Your task to perform on an android device: check out phone information Image 0: 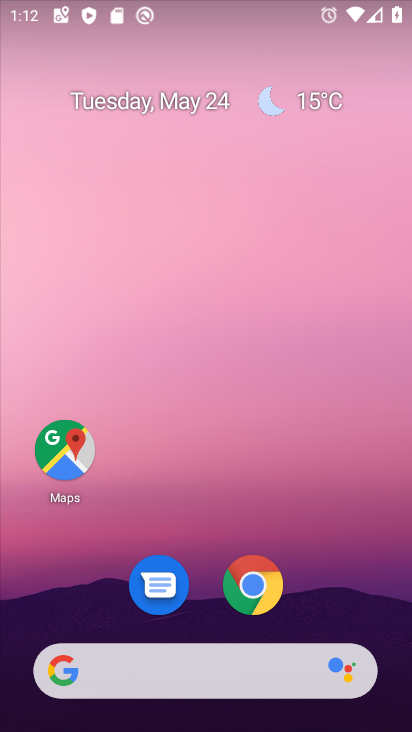
Step 0: drag from (227, 462) to (199, 37)
Your task to perform on an android device: check out phone information Image 1: 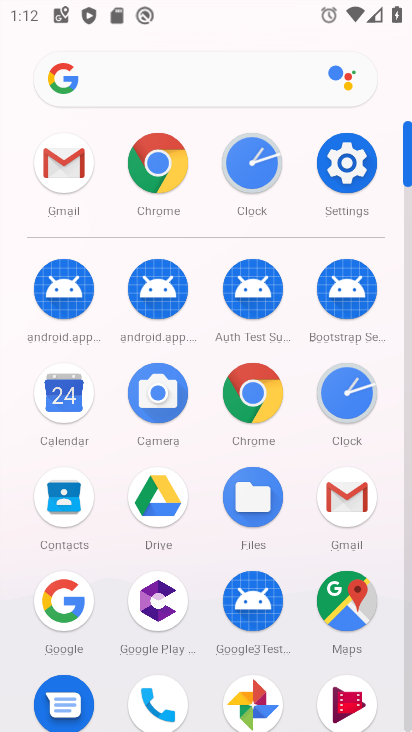
Step 1: click (162, 696)
Your task to perform on an android device: check out phone information Image 2: 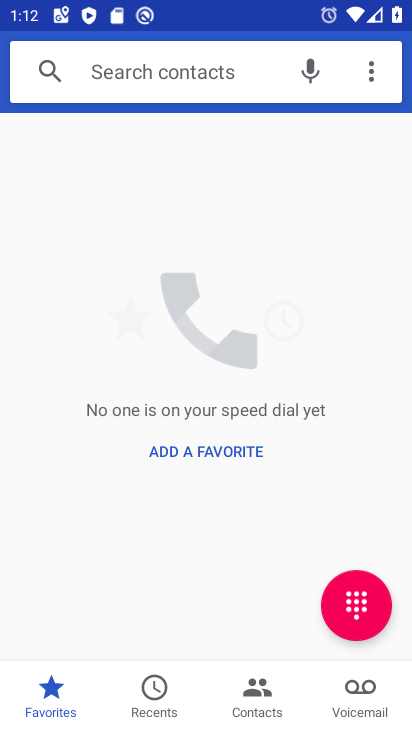
Step 2: click (371, 76)
Your task to perform on an android device: check out phone information Image 3: 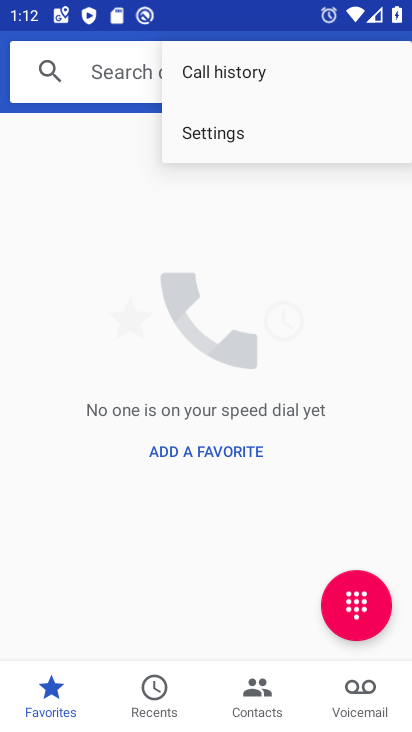
Step 3: click (318, 132)
Your task to perform on an android device: check out phone information Image 4: 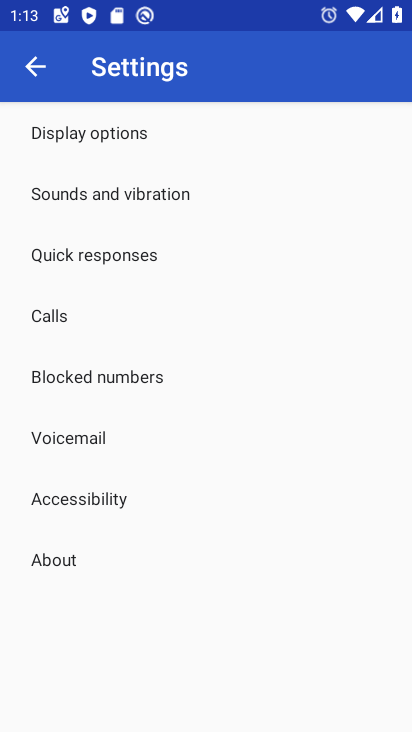
Step 4: click (83, 562)
Your task to perform on an android device: check out phone information Image 5: 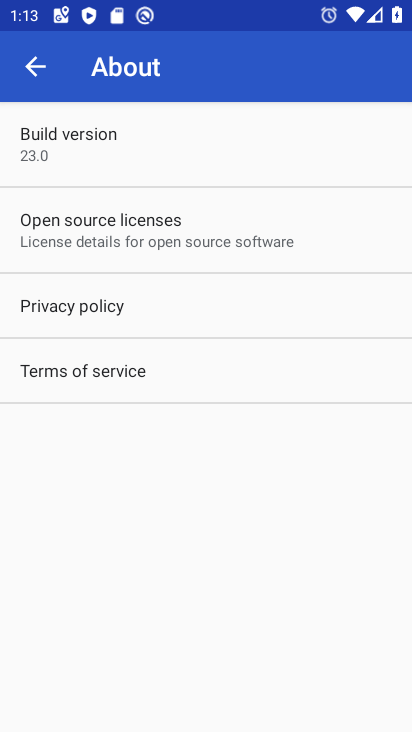
Step 5: task complete